Your task to perform on an android device: Go to ESPN.com Image 0: 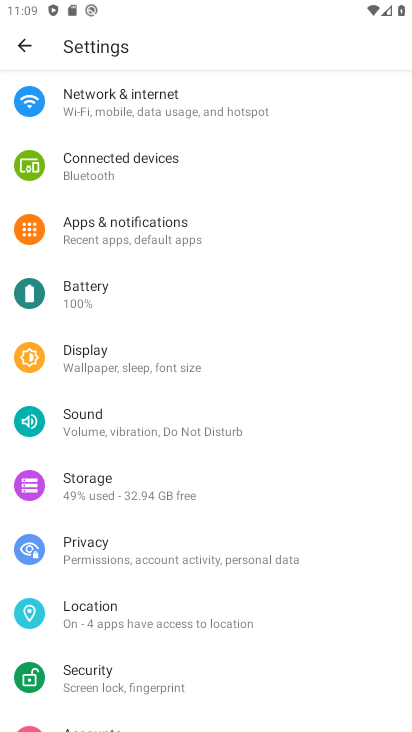
Step 0: press home button
Your task to perform on an android device: Go to ESPN.com Image 1: 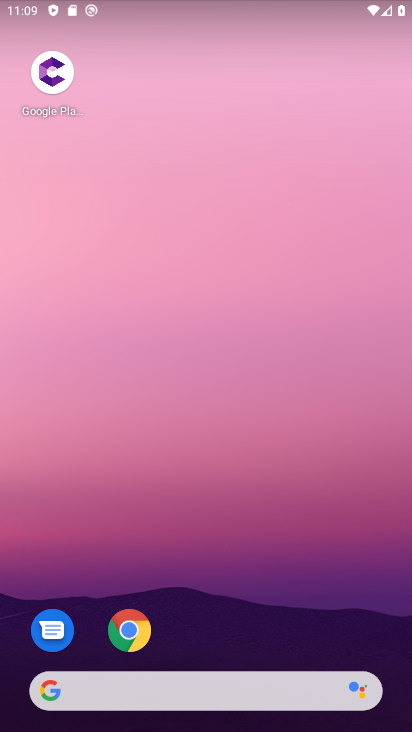
Step 1: click (124, 631)
Your task to perform on an android device: Go to ESPN.com Image 2: 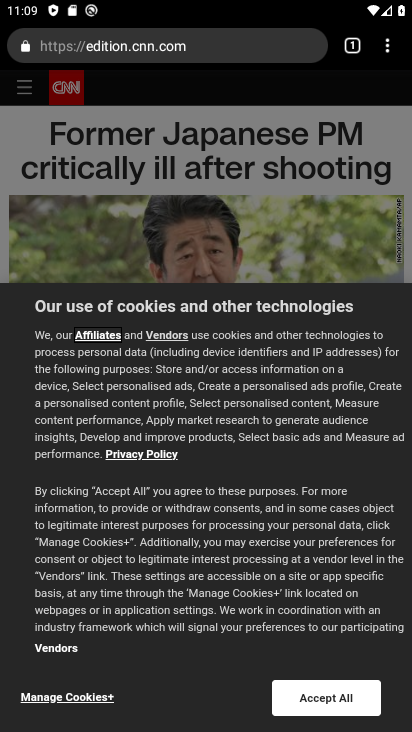
Step 2: click (210, 53)
Your task to perform on an android device: Go to ESPN.com Image 3: 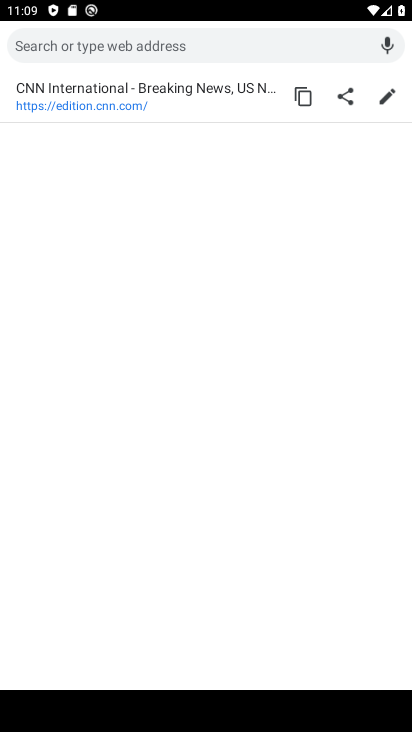
Step 3: type "ESPN.com"
Your task to perform on an android device: Go to ESPN.com Image 4: 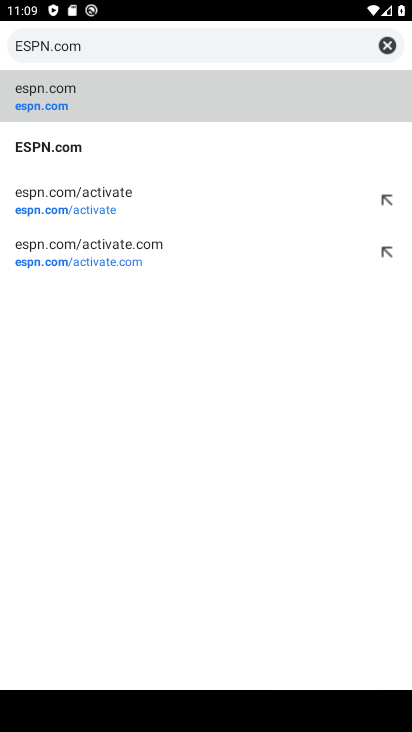
Step 4: click (46, 92)
Your task to perform on an android device: Go to ESPN.com Image 5: 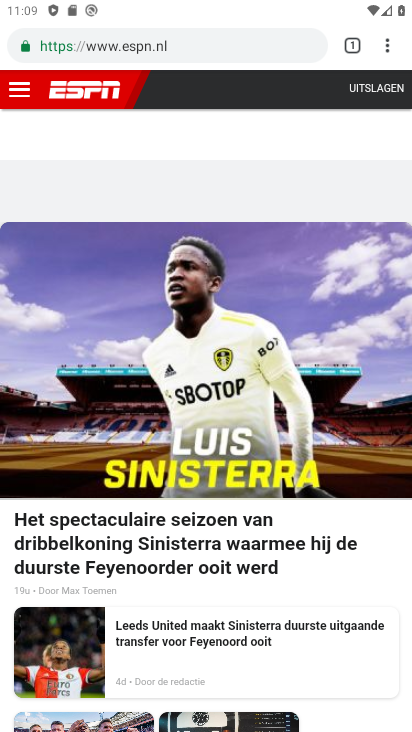
Step 5: task complete